Your task to perform on an android device: Go to Android settings Image 0: 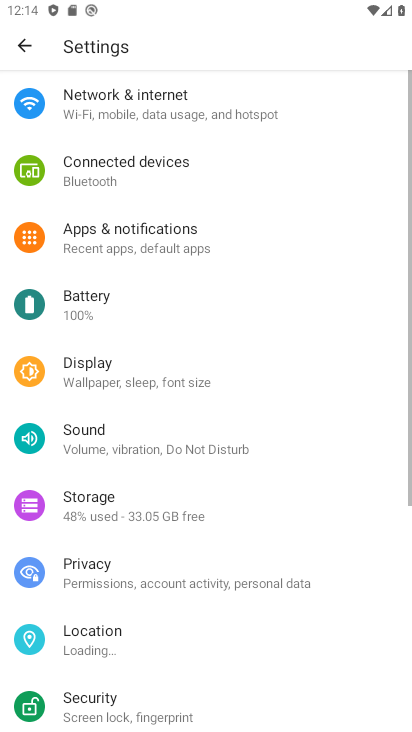
Step 0: press home button
Your task to perform on an android device: Go to Android settings Image 1: 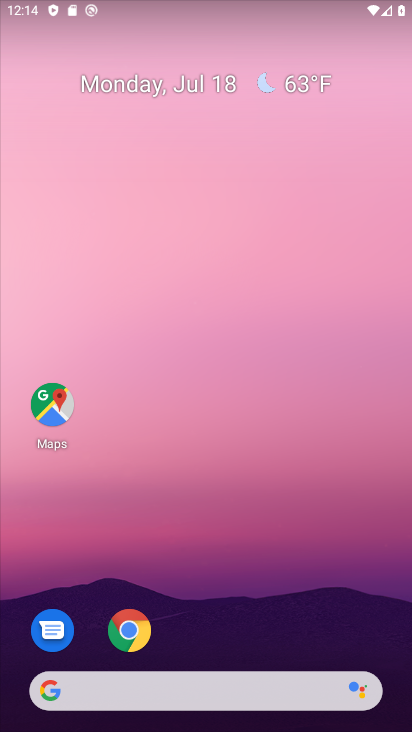
Step 1: drag from (217, 649) to (191, 63)
Your task to perform on an android device: Go to Android settings Image 2: 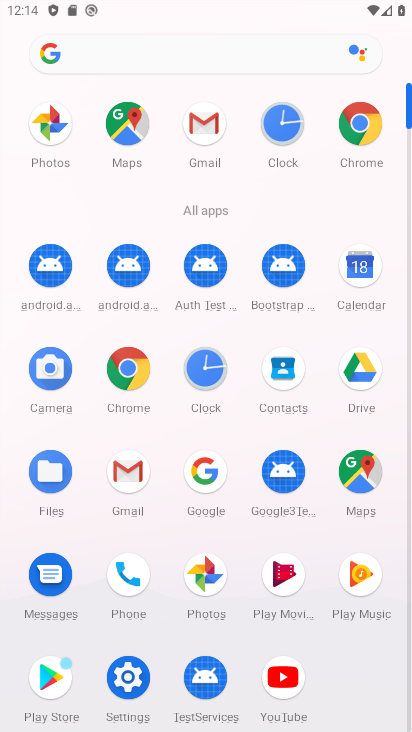
Step 2: click (145, 663)
Your task to perform on an android device: Go to Android settings Image 3: 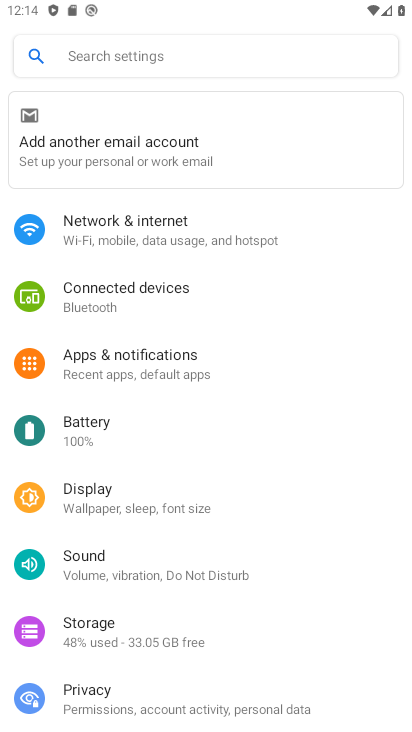
Step 3: click (150, 225)
Your task to perform on an android device: Go to Android settings Image 4: 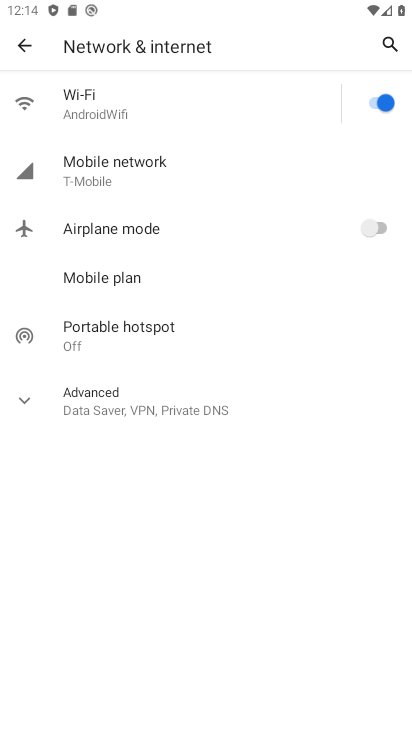
Step 4: click (33, 38)
Your task to perform on an android device: Go to Android settings Image 5: 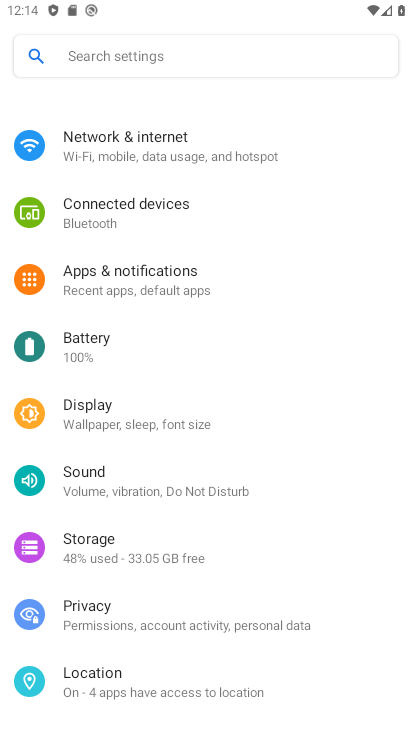
Step 5: task complete